Your task to perform on an android device: Go to Yahoo.com Image 0: 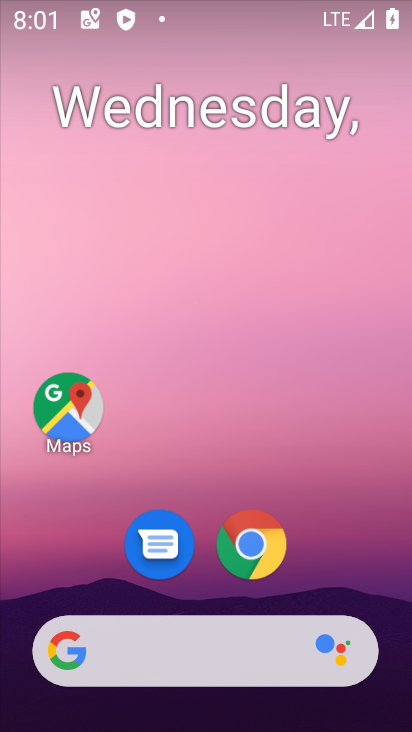
Step 0: drag from (337, 574) to (268, 29)
Your task to perform on an android device: Go to Yahoo.com Image 1: 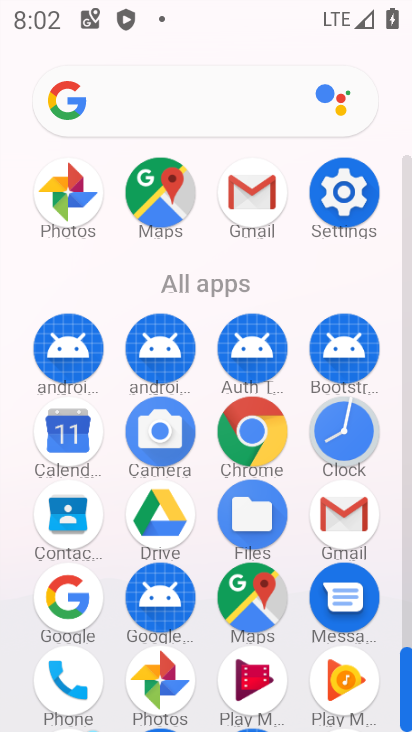
Step 1: click (255, 427)
Your task to perform on an android device: Go to Yahoo.com Image 2: 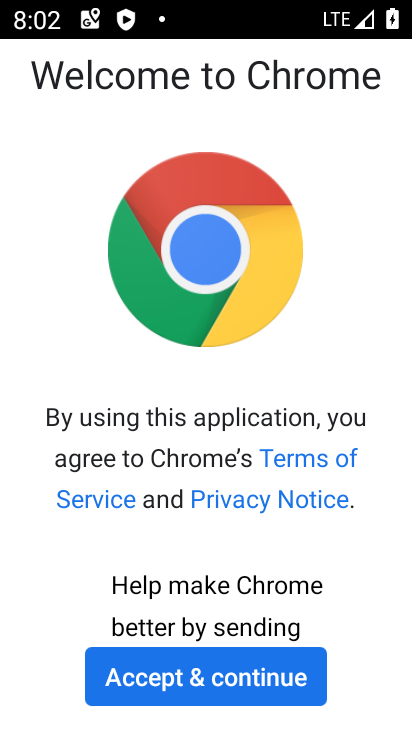
Step 2: click (239, 674)
Your task to perform on an android device: Go to Yahoo.com Image 3: 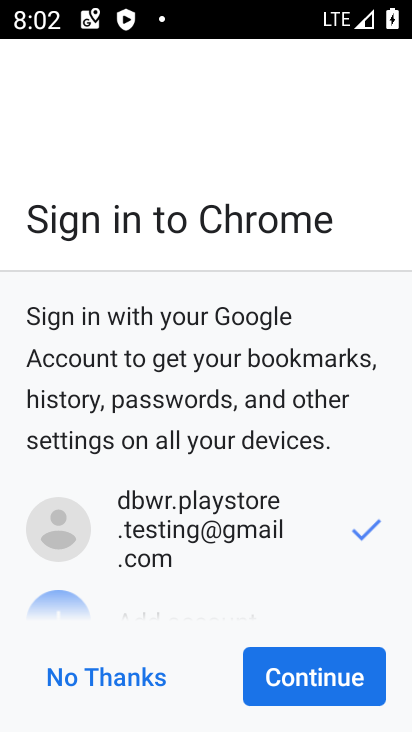
Step 3: click (289, 672)
Your task to perform on an android device: Go to Yahoo.com Image 4: 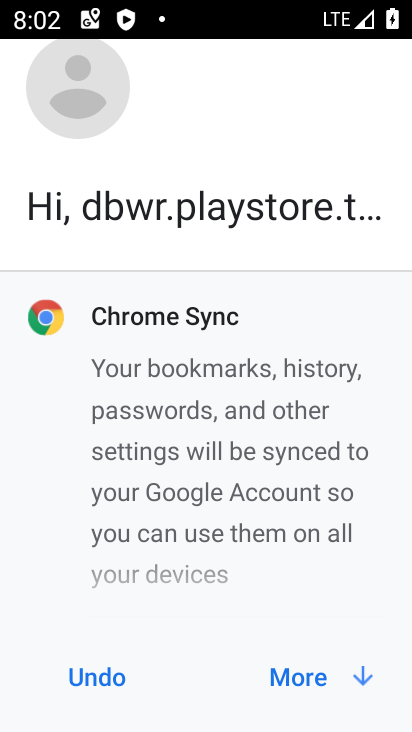
Step 4: click (275, 683)
Your task to perform on an android device: Go to Yahoo.com Image 5: 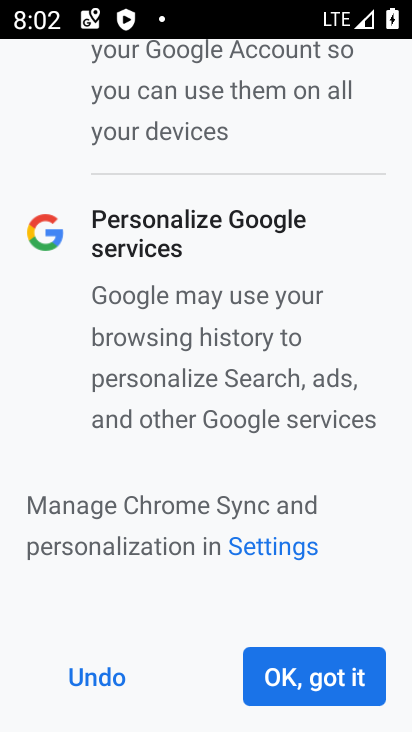
Step 5: click (275, 683)
Your task to perform on an android device: Go to Yahoo.com Image 6: 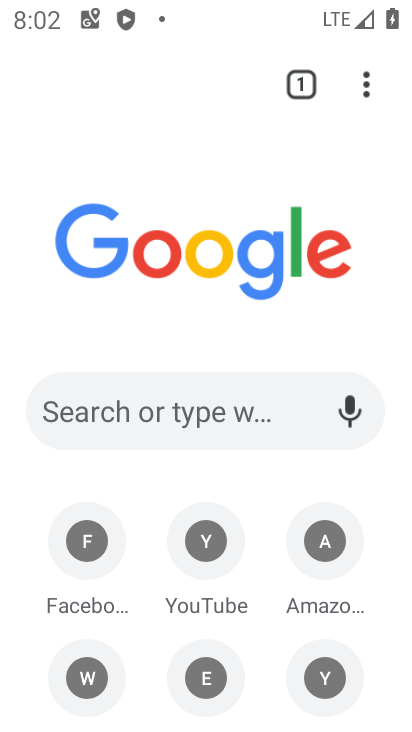
Step 6: click (152, 399)
Your task to perform on an android device: Go to Yahoo.com Image 7: 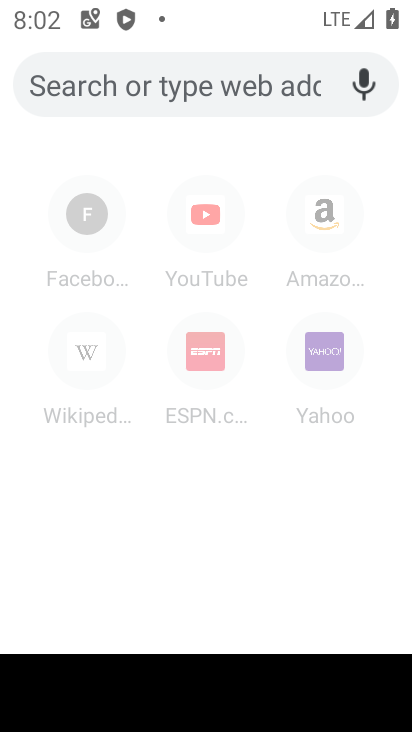
Step 7: type " Yahoo.com"
Your task to perform on an android device: Go to Yahoo.com Image 8: 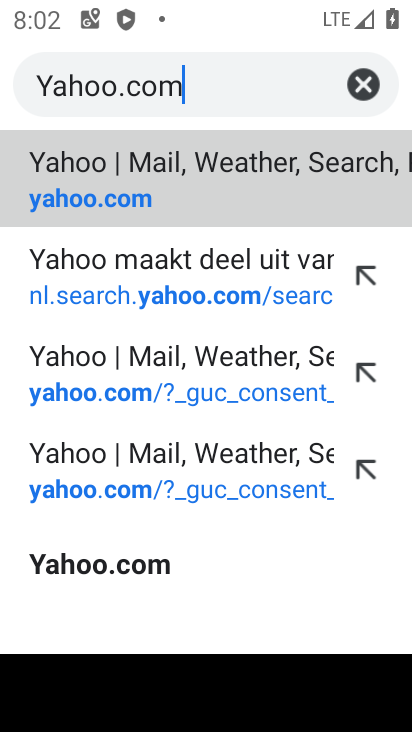
Step 8: type ""
Your task to perform on an android device: Go to Yahoo.com Image 9: 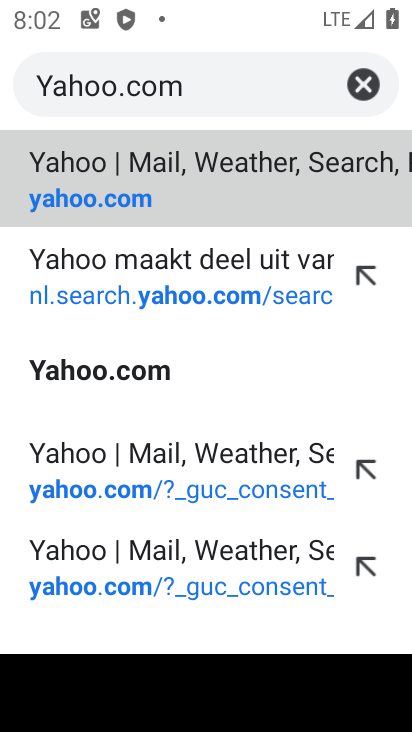
Step 9: click (208, 162)
Your task to perform on an android device: Go to Yahoo.com Image 10: 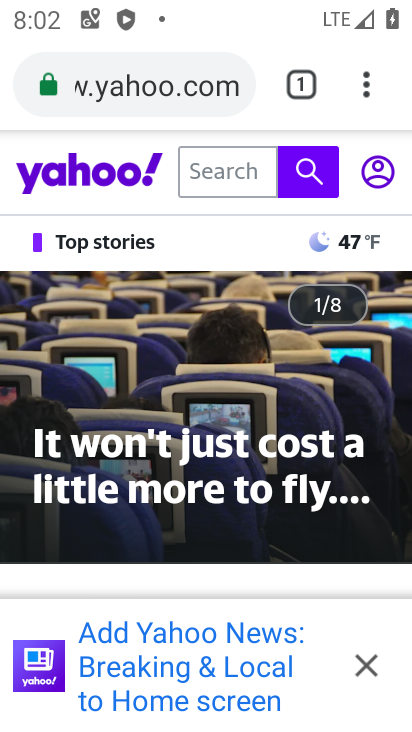
Step 10: task complete